Your task to perform on an android device: turn on wifi Image 0: 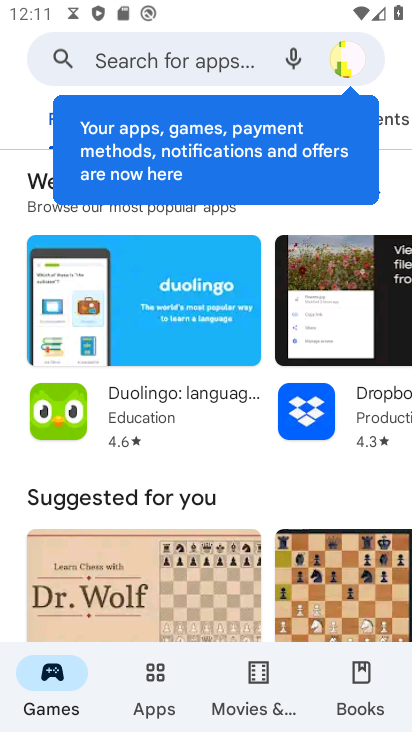
Step 0: press back button
Your task to perform on an android device: turn on wifi Image 1: 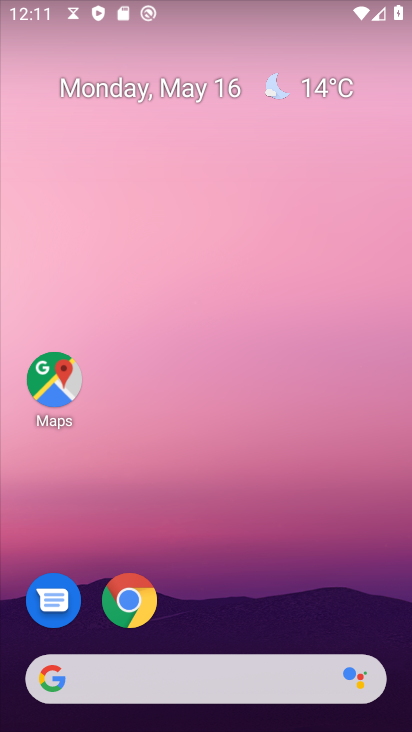
Step 1: drag from (228, 593) to (224, 45)
Your task to perform on an android device: turn on wifi Image 2: 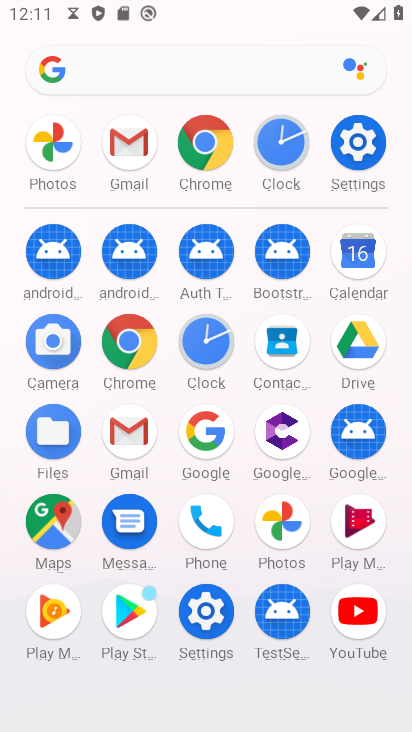
Step 2: click (205, 612)
Your task to perform on an android device: turn on wifi Image 3: 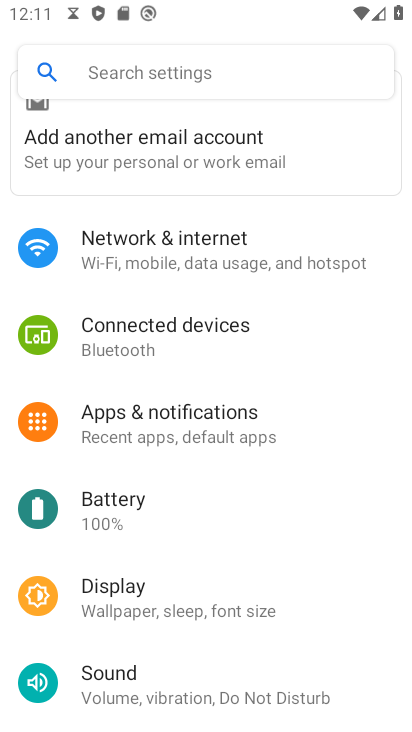
Step 3: click (198, 268)
Your task to perform on an android device: turn on wifi Image 4: 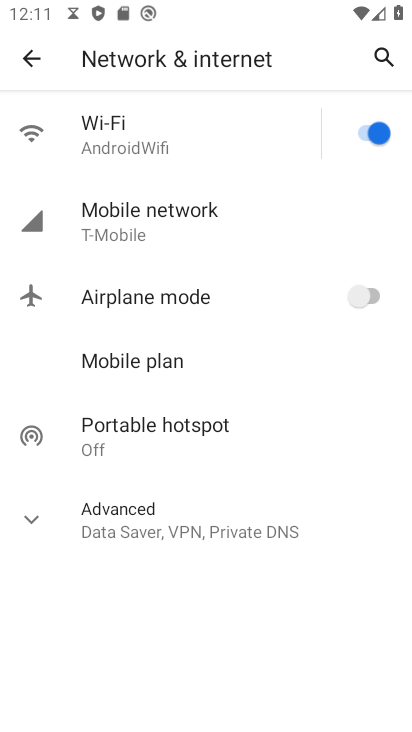
Step 4: task complete